Your task to perform on an android device: toggle wifi Image 0: 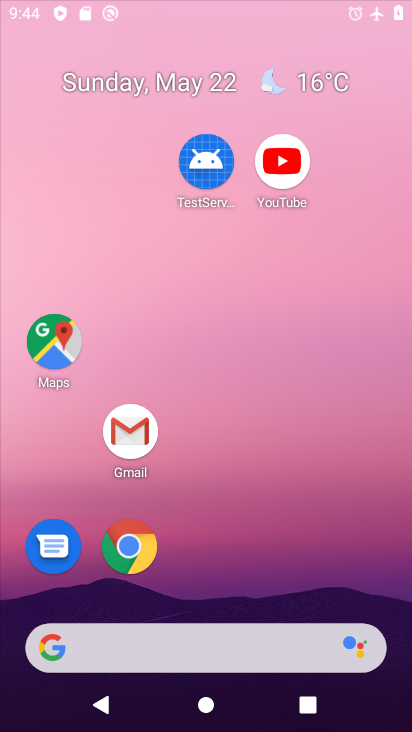
Step 0: click (410, 431)
Your task to perform on an android device: toggle wifi Image 1: 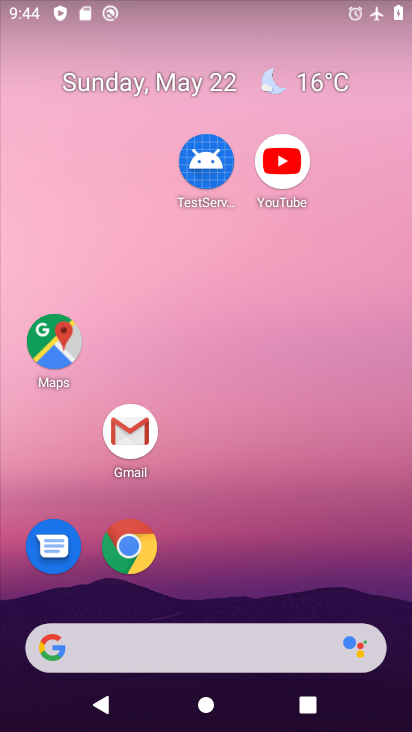
Step 1: drag from (219, 691) to (137, 12)
Your task to perform on an android device: toggle wifi Image 2: 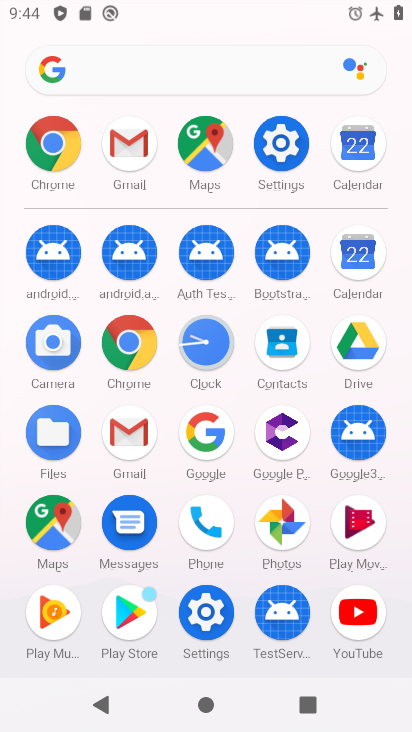
Step 2: click (273, 132)
Your task to perform on an android device: toggle wifi Image 3: 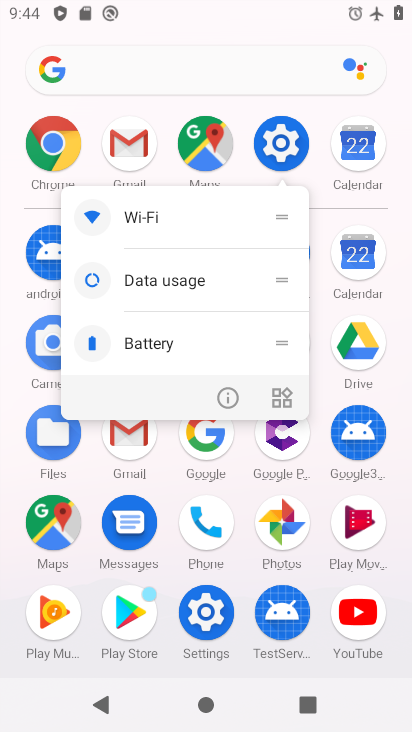
Step 3: click (273, 132)
Your task to perform on an android device: toggle wifi Image 4: 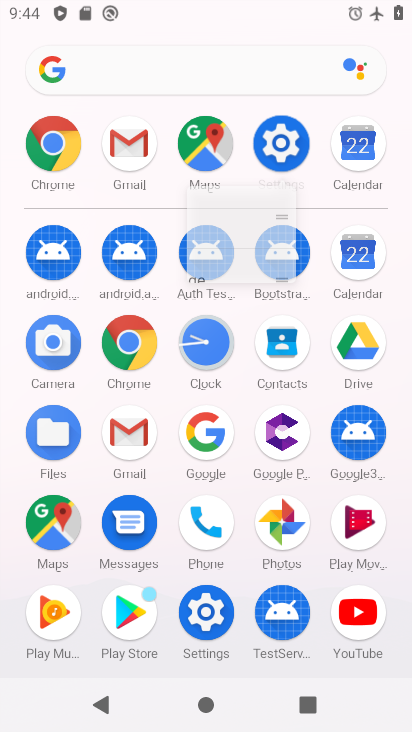
Step 4: click (273, 132)
Your task to perform on an android device: toggle wifi Image 5: 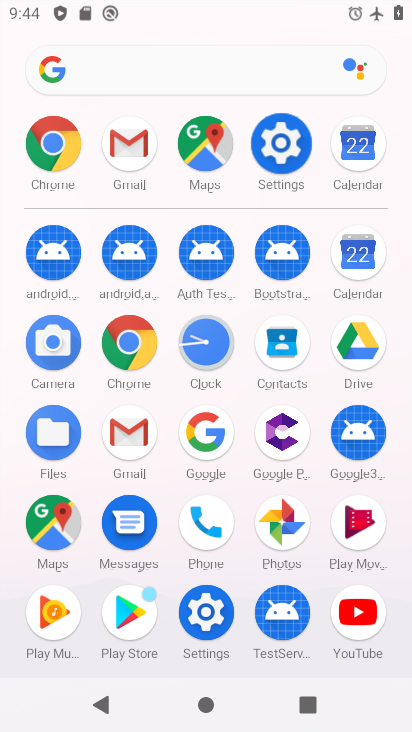
Step 5: click (273, 132)
Your task to perform on an android device: toggle wifi Image 6: 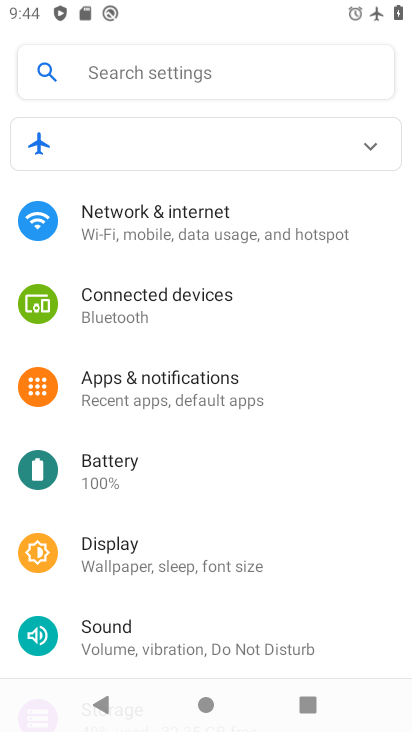
Step 6: click (146, 222)
Your task to perform on an android device: toggle wifi Image 7: 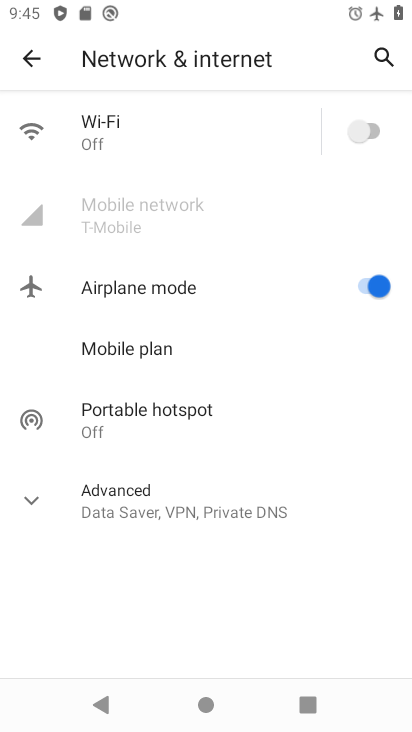
Step 7: click (357, 126)
Your task to perform on an android device: toggle wifi Image 8: 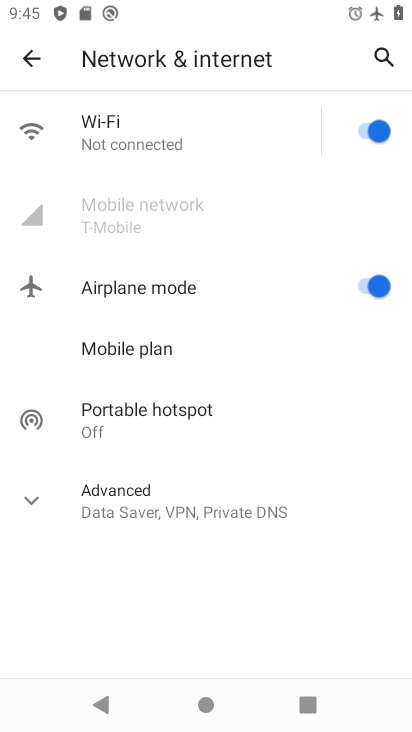
Step 8: task complete